Your task to perform on an android device: move a message to another label in the gmail app Image 0: 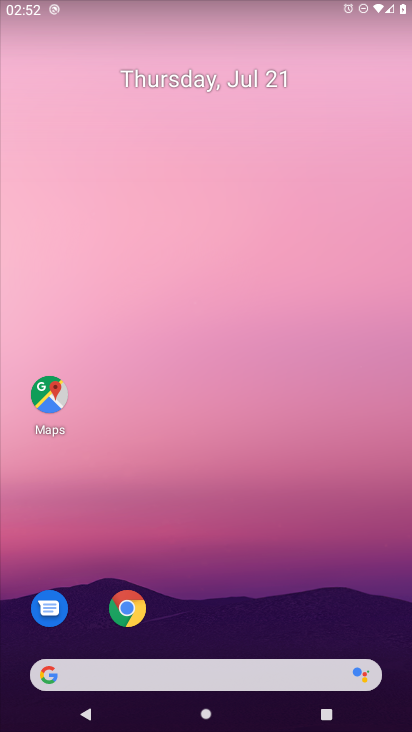
Step 0: press home button
Your task to perform on an android device: move a message to another label in the gmail app Image 1: 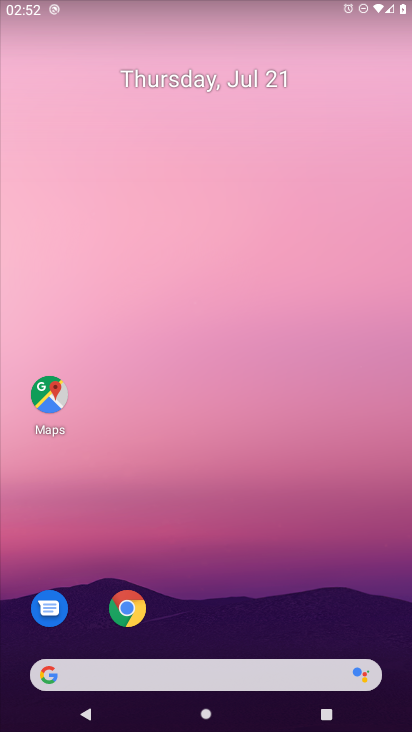
Step 1: drag from (226, 614) to (271, 1)
Your task to perform on an android device: move a message to another label in the gmail app Image 2: 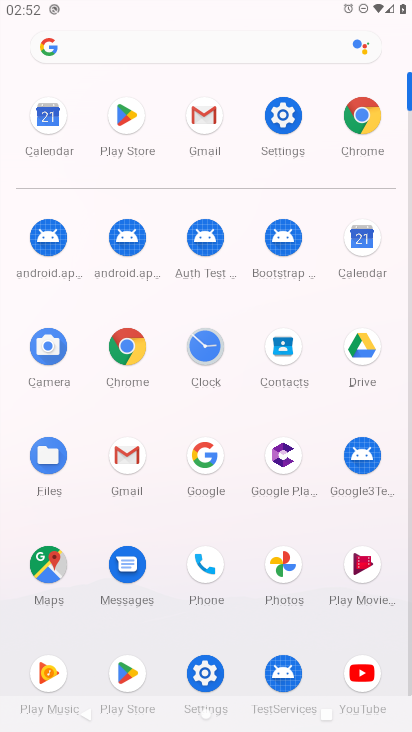
Step 2: click (211, 124)
Your task to perform on an android device: move a message to another label in the gmail app Image 3: 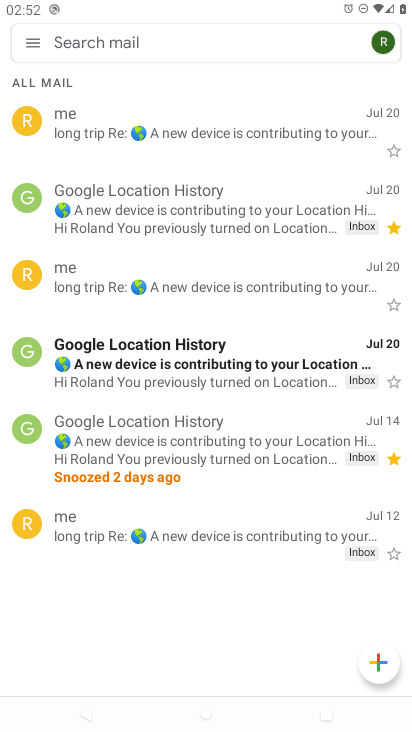
Step 3: click (198, 206)
Your task to perform on an android device: move a message to another label in the gmail app Image 4: 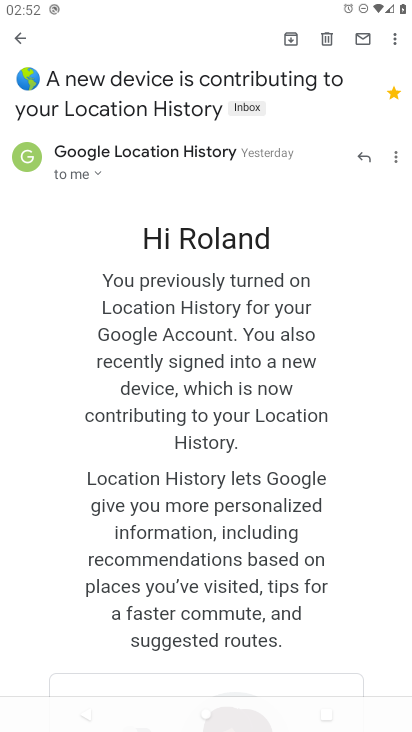
Step 4: click (395, 39)
Your task to perform on an android device: move a message to another label in the gmail app Image 5: 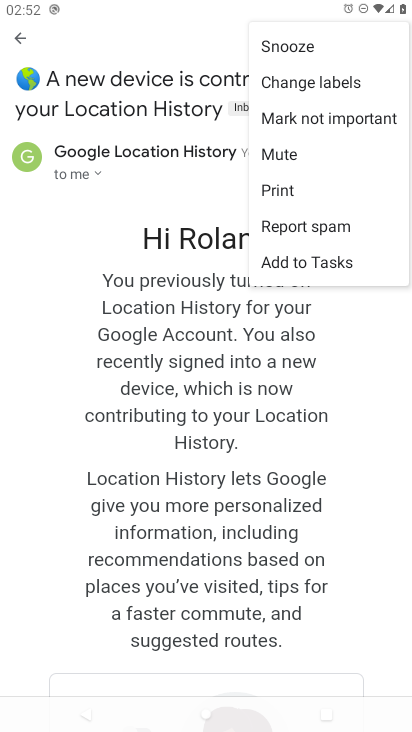
Step 5: click (328, 83)
Your task to perform on an android device: move a message to another label in the gmail app Image 6: 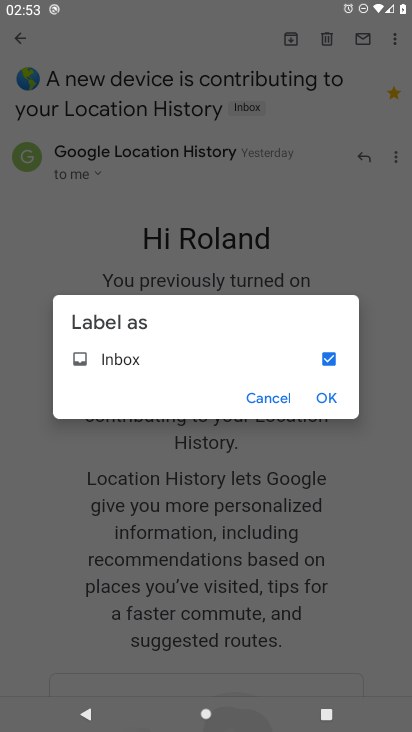
Step 6: click (329, 391)
Your task to perform on an android device: move a message to another label in the gmail app Image 7: 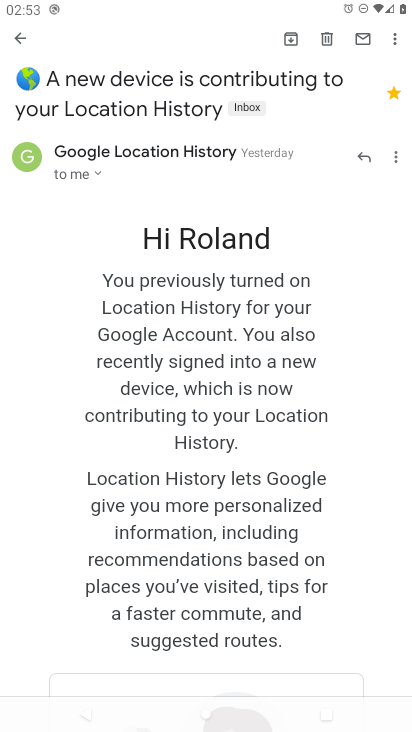
Step 7: task complete